Your task to perform on an android device: Search for vegetarian restaurants on Maps Image 0: 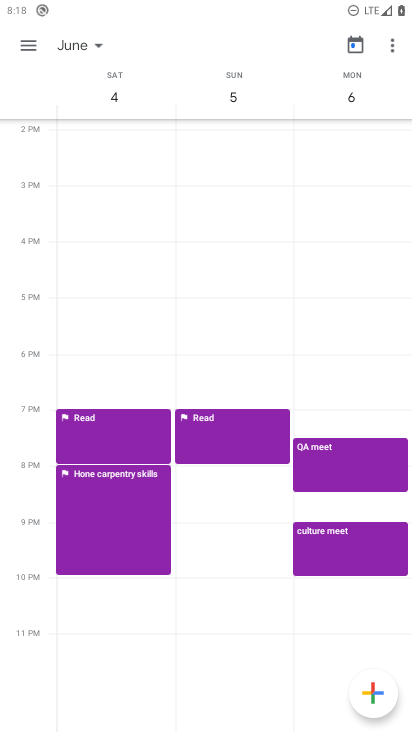
Step 0: press home button
Your task to perform on an android device: Search for vegetarian restaurants on Maps Image 1: 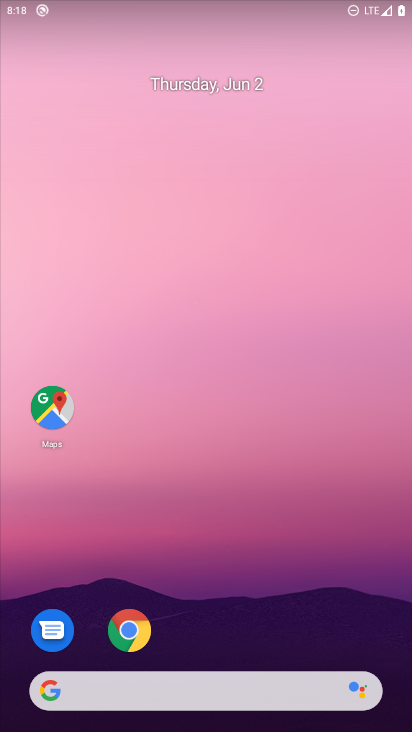
Step 1: click (56, 393)
Your task to perform on an android device: Search for vegetarian restaurants on Maps Image 2: 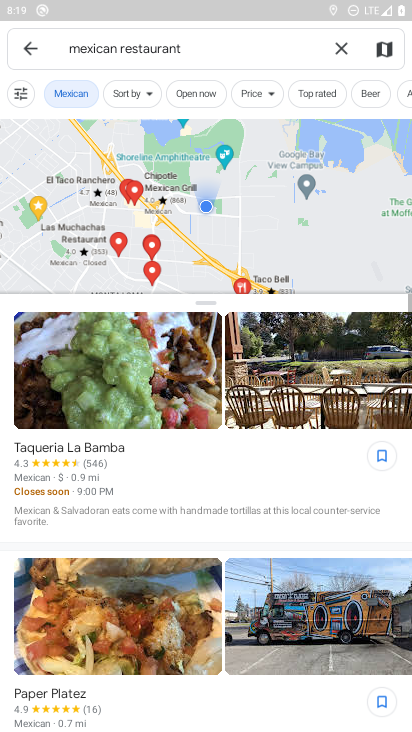
Step 2: click (350, 53)
Your task to perform on an android device: Search for vegetarian restaurants on Maps Image 3: 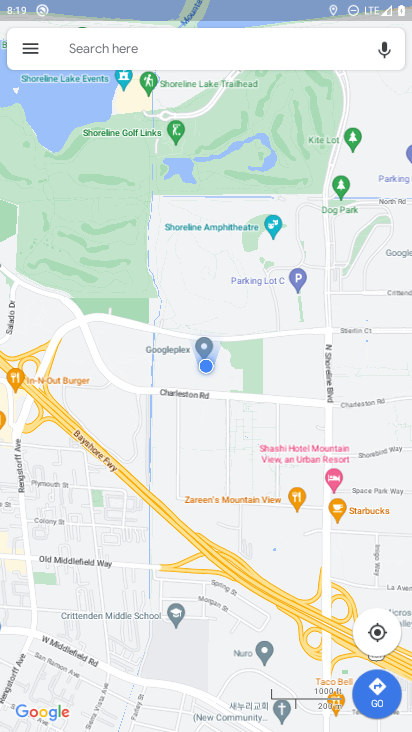
Step 3: click (289, 50)
Your task to perform on an android device: Search for vegetarian restaurants on Maps Image 4: 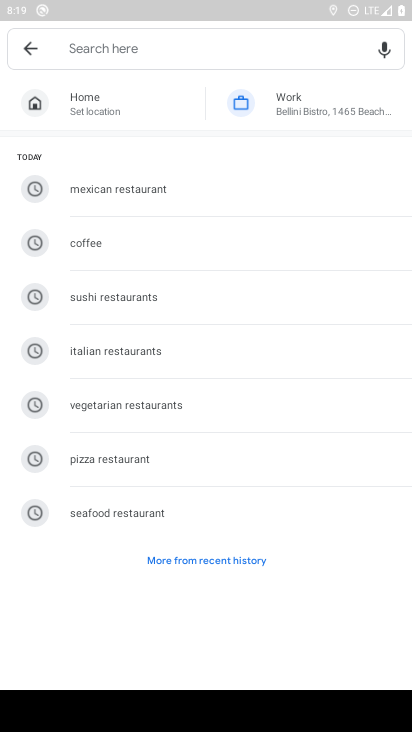
Step 4: click (179, 406)
Your task to perform on an android device: Search for vegetarian restaurants on Maps Image 5: 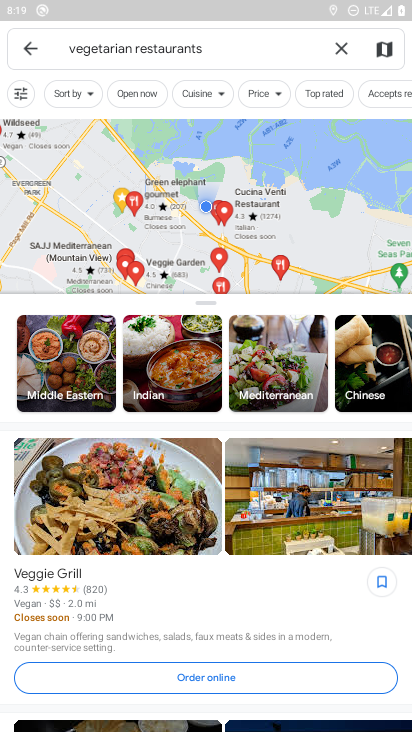
Step 5: task complete